Your task to perform on an android device: toggle notification dots Image 0: 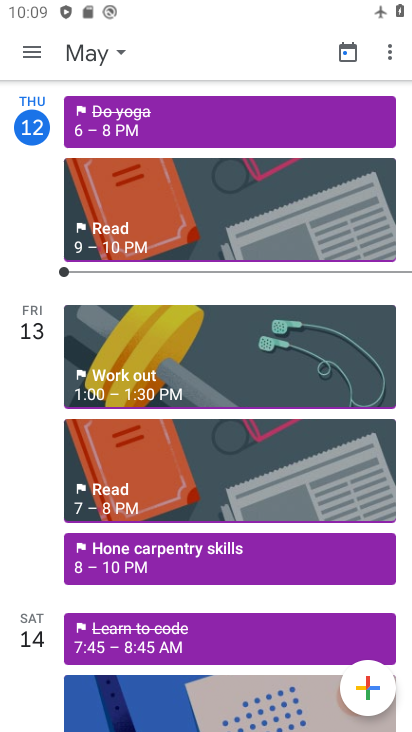
Step 0: press home button
Your task to perform on an android device: toggle notification dots Image 1: 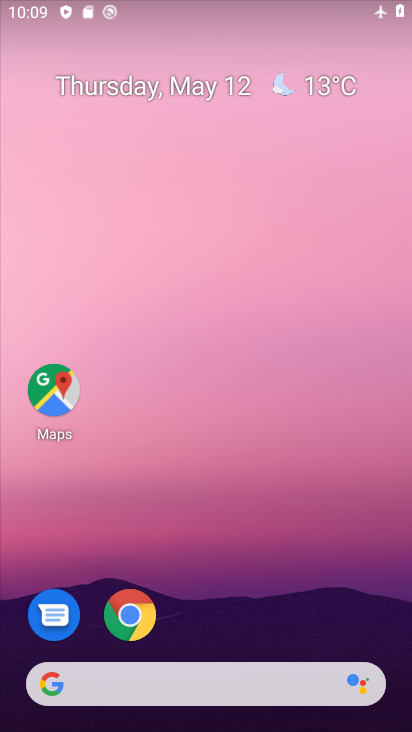
Step 1: drag from (330, 527) to (404, 34)
Your task to perform on an android device: toggle notification dots Image 2: 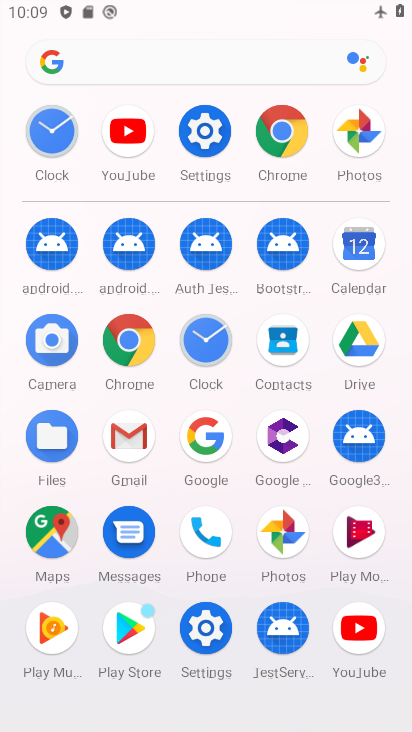
Step 2: click (208, 138)
Your task to perform on an android device: toggle notification dots Image 3: 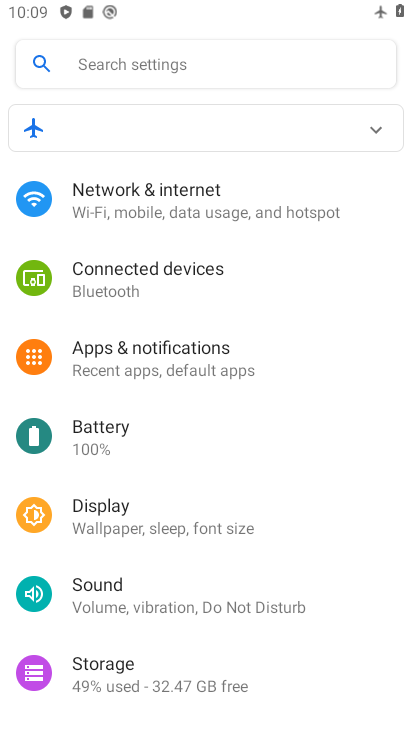
Step 3: click (178, 366)
Your task to perform on an android device: toggle notification dots Image 4: 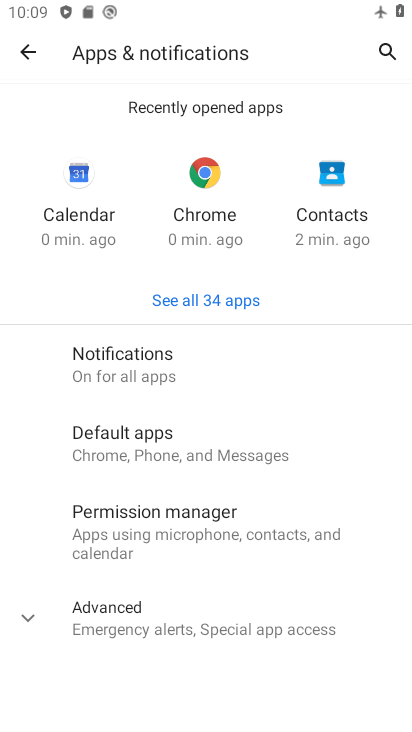
Step 4: drag from (291, 560) to (348, 209)
Your task to perform on an android device: toggle notification dots Image 5: 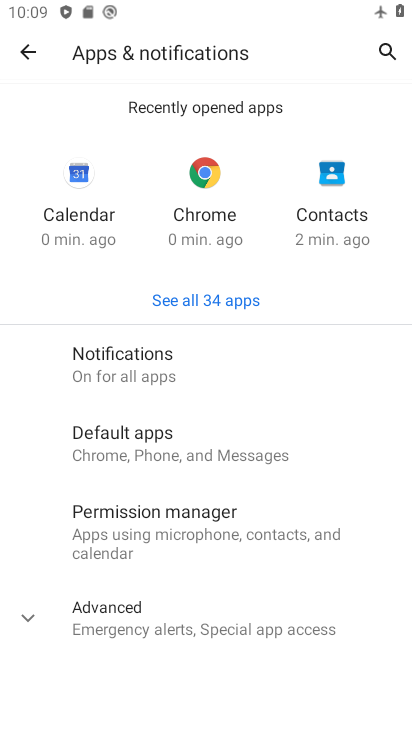
Step 5: click (149, 369)
Your task to perform on an android device: toggle notification dots Image 6: 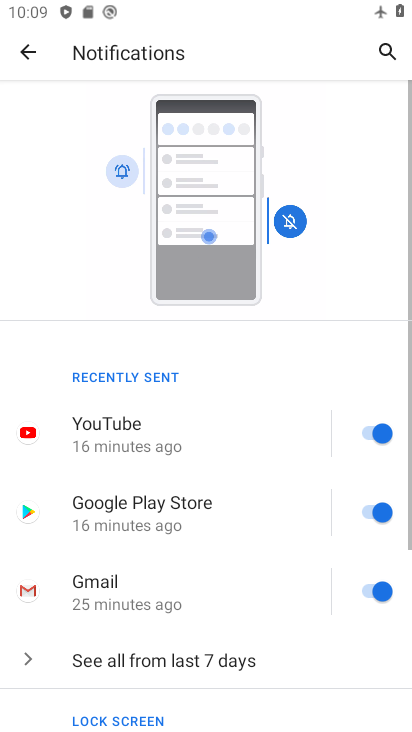
Step 6: drag from (156, 623) to (275, 228)
Your task to perform on an android device: toggle notification dots Image 7: 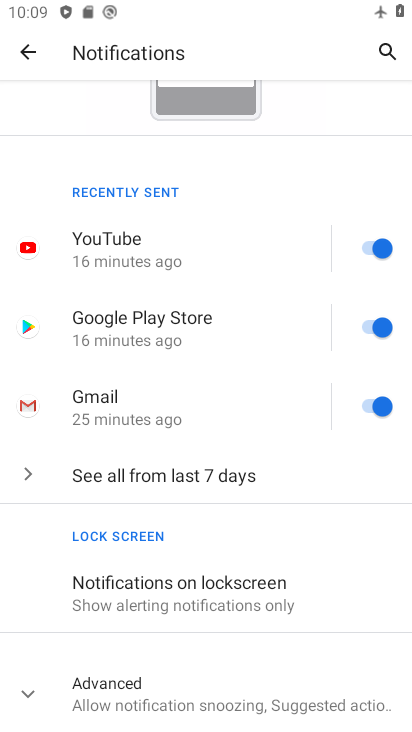
Step 7: click (189, 701)
Your task to perform on an android device: toggle notification dots Image 8: 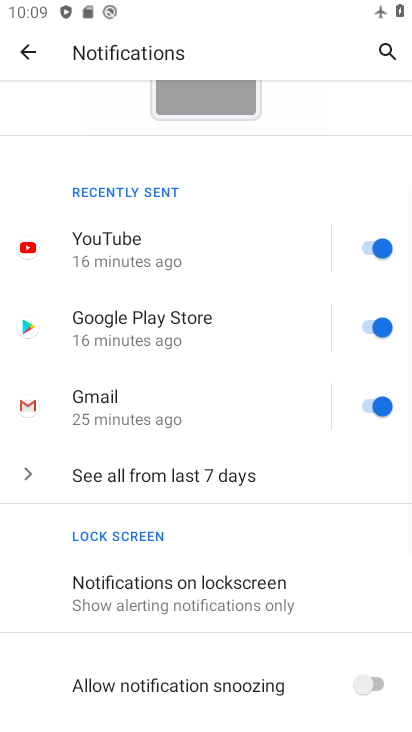
Step 8: drag from (189, 700) to (152, 246)
Your task to perform on an android device: toggle notification dots Image 9: 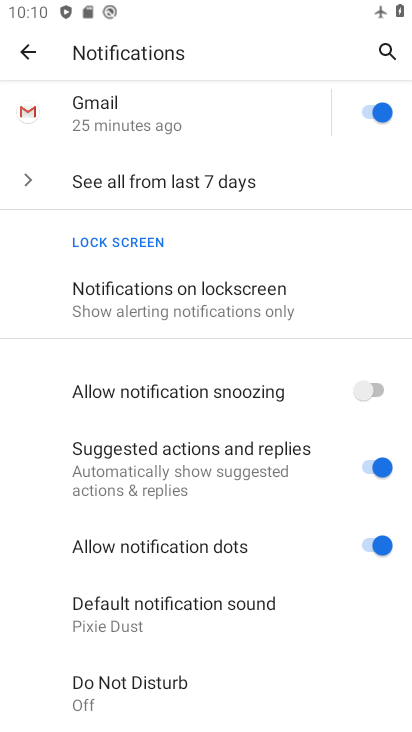
Step 9: click (359, 536)
Your task to perform on an android device: toggle notification dots Image 10: 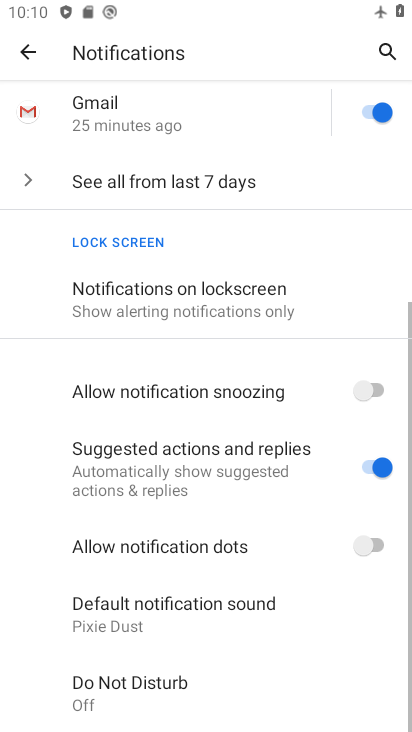
Step 10: task complete